Your task to perform on an android device: Open network settings Image 0: 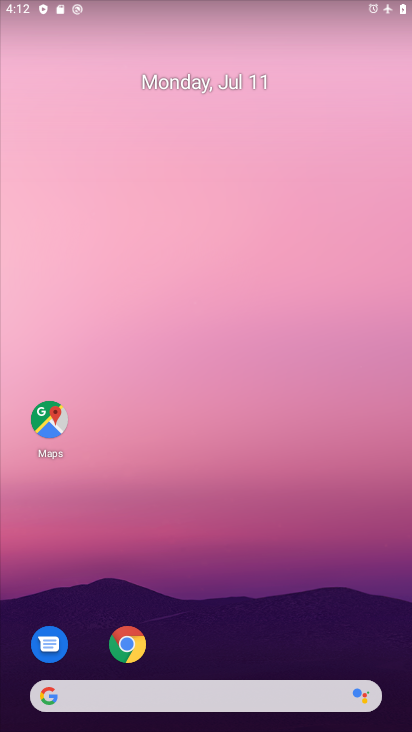
Step 0: drag from (130, 672) to (221, 2)
Your task to perform on an android device: Open network settings Image 1: 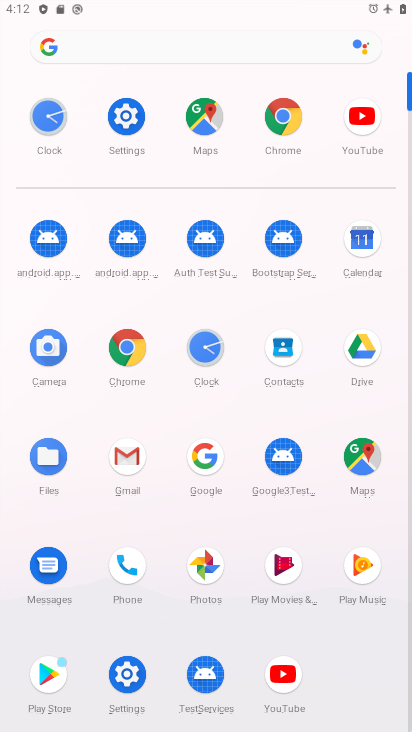
Step 1: click (126, 114)
Your task to perform on an android device: Open network settings Image 2: 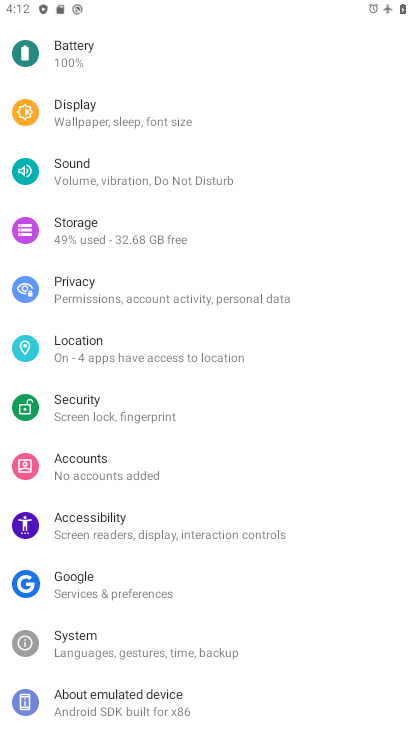
Step 2: drag from (200, 279) to (257, 701)
Your task to perform on an android device: Open network settings Image 3: 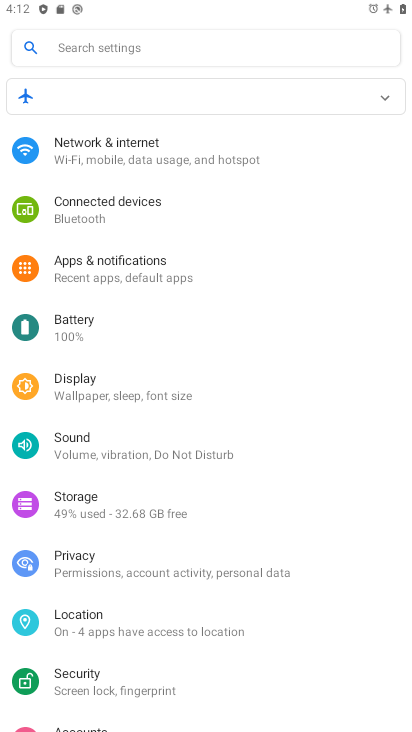
Step 3: click (155, 163)
Your task to perform on an android device: Open network settings Image 4: 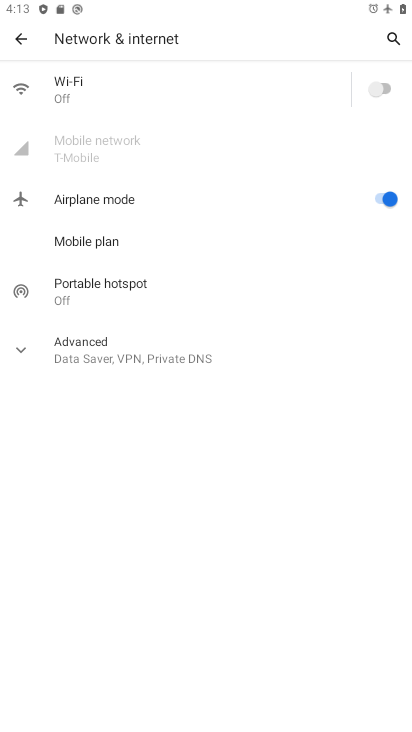
Step 4: task complete